Your task to perform on an android device: toggle notifications settings in the gmail app Image 0: 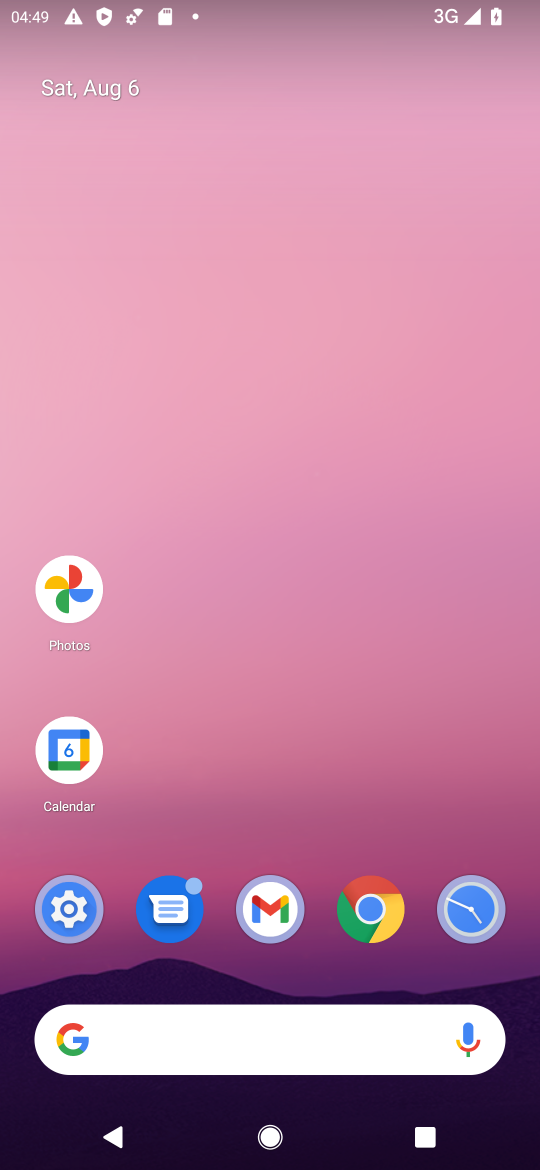
Step 0: click (267, 897)
Your task to perform on an android device: toggle notifications settings in the gmail app Image 1: 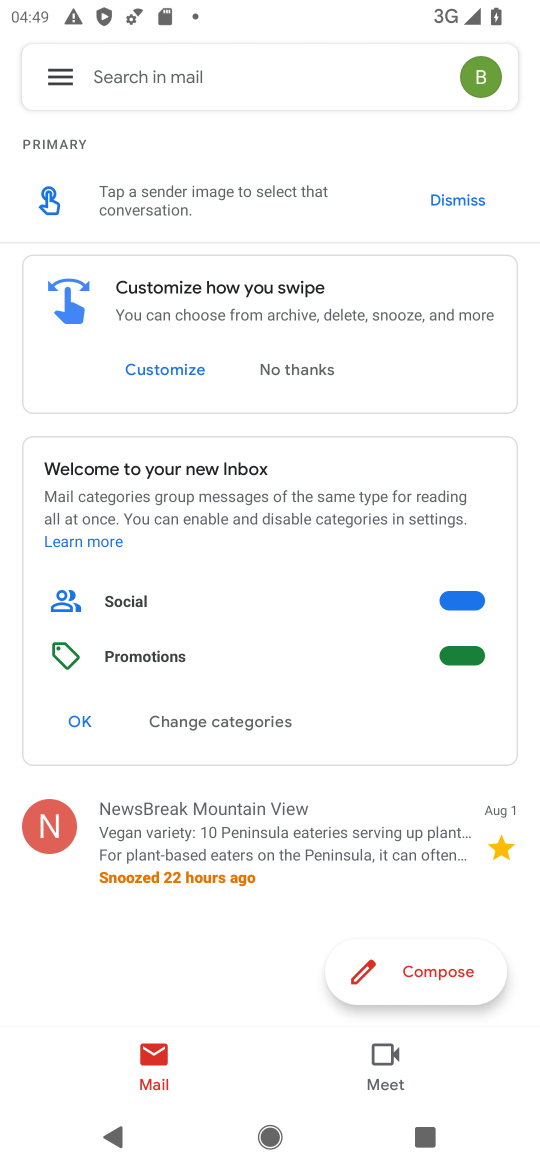
Step 1: click (41, 66)
Your task to perform on an android device: toggle notifications settings in the gmail app Image 2: 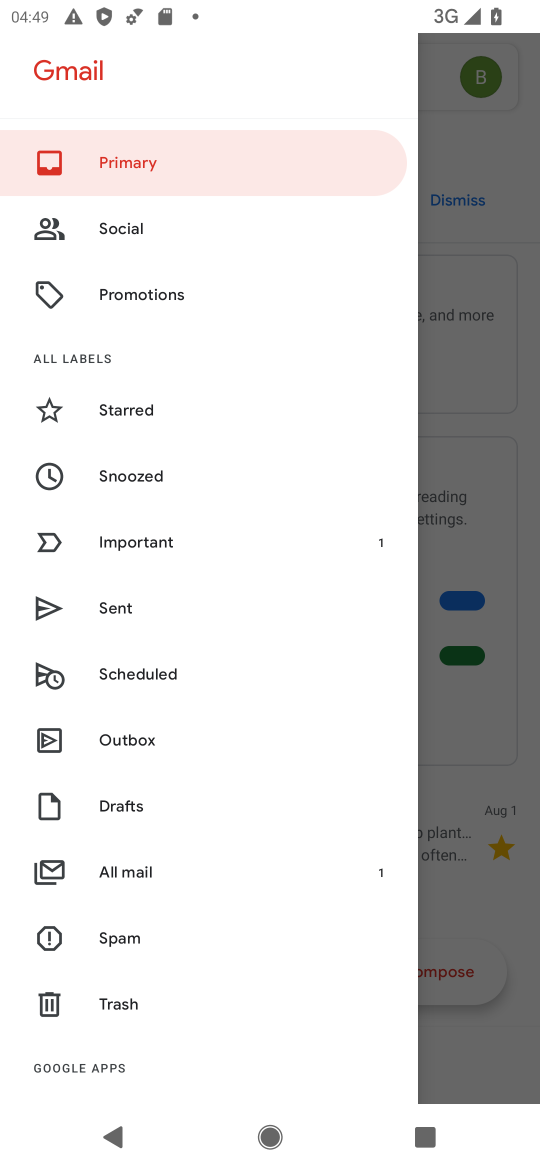
Step 2: drag from (243, 952) to (220, 301)
Your task to perform on an android device: toggle notifications settings in the gmail app Image 3: 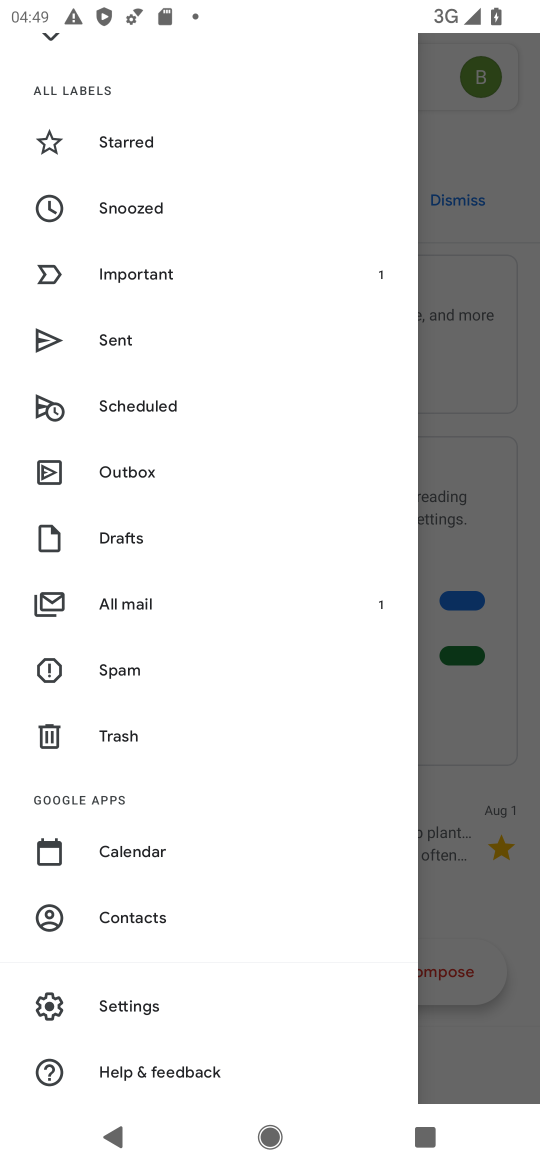
Step 3: click (139, 1005)
Your task to perform on an android device: toggle notifications settings in the gmail app Image 4: 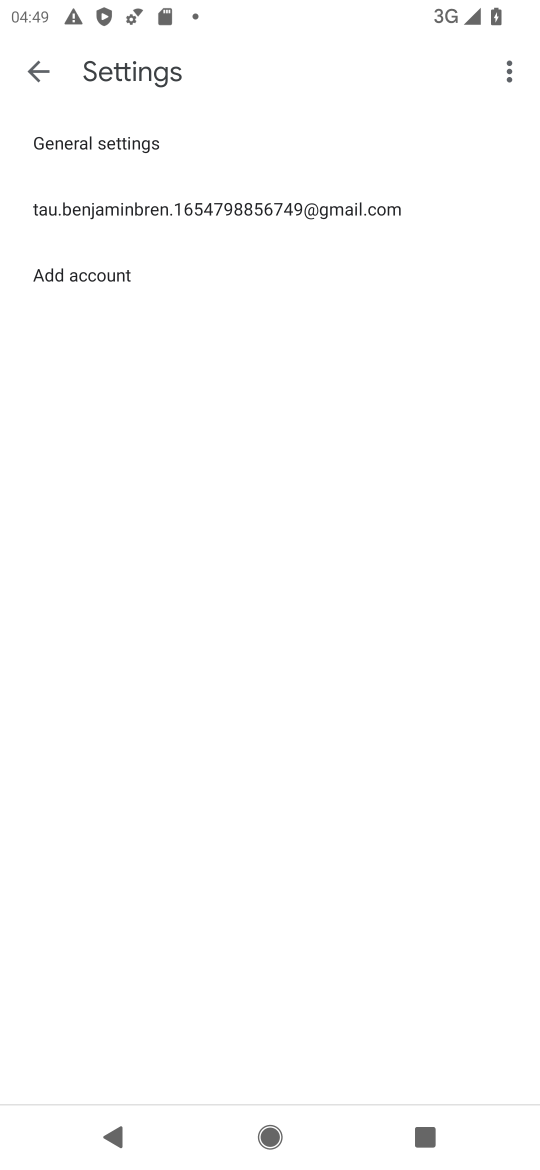
Step 4: click (96, 147)
Your task to perform on an android device: toggle notifications settings in the gmail app Image 5: 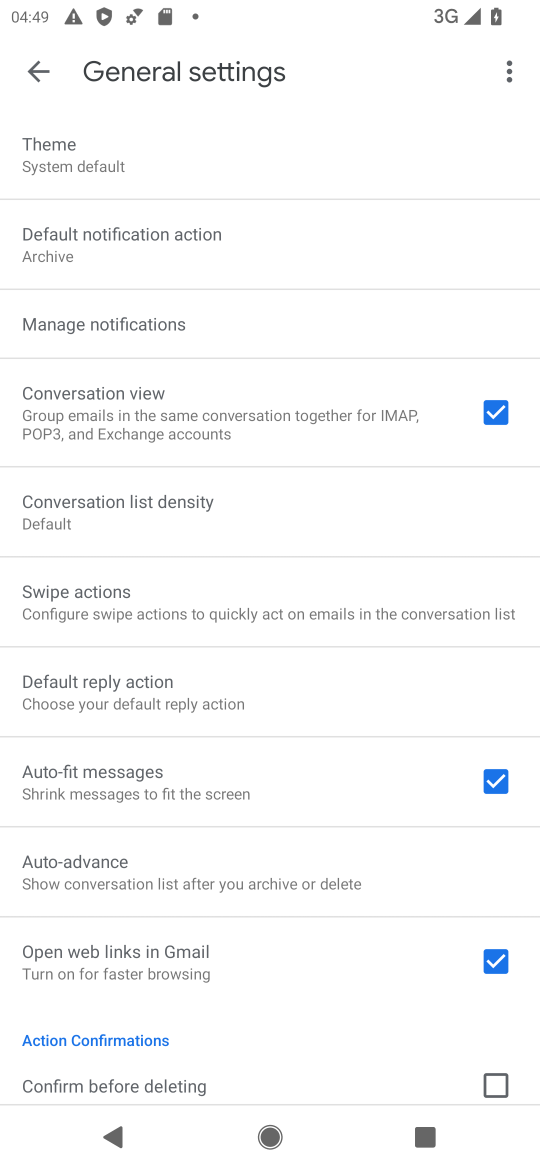
Step 5: click (105, 317)
Your task to perform on an android device: toggle notifications settings in the gmail app Image 6: 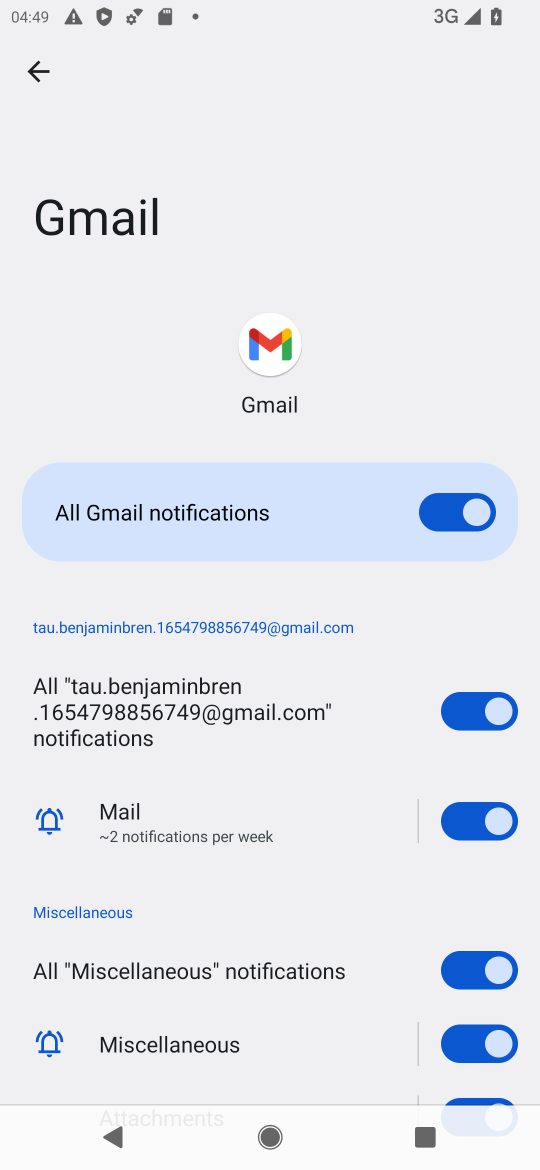
Step 6: click (468, 520)
Your task to perform on an android device: toggle notifications settings in the gmail app Image 7: 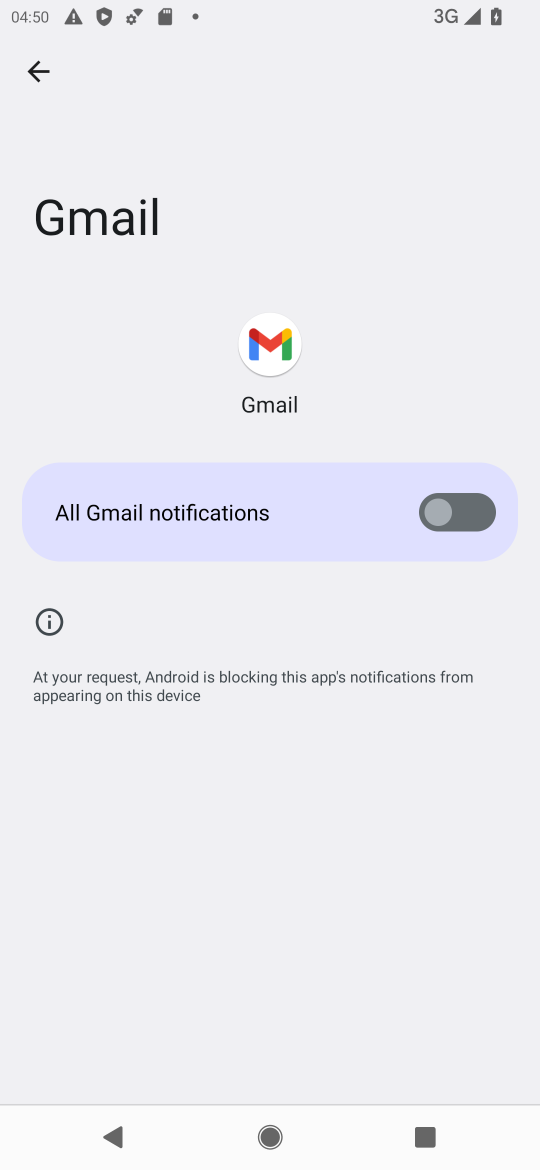
Step 7: task complete